Your task to perform on an android device: check the backup settings in the google photos Image 0: 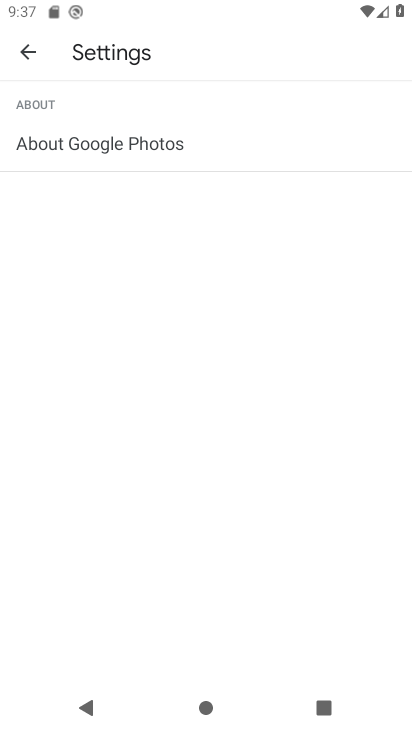
Step 0: press home button
Your task to perform on an android device: check the backup settings in the google photos Image 1: 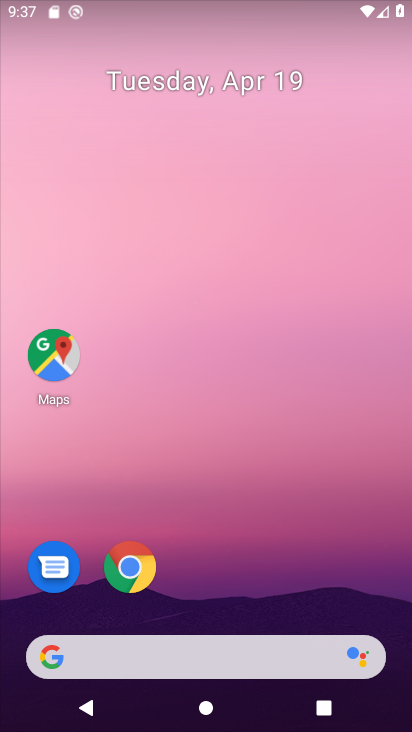
Step 1: drag from (255, 527) to (311, 41)
Your task to perform on an android device: check the backup settings in the google photos Image 2: 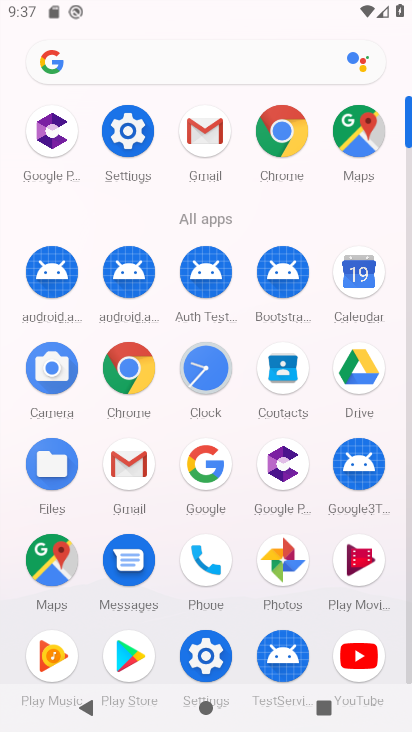
Step 2: click (276, 550)
Your task to perform on an android device: check the backup settings in the google photos Image 3: 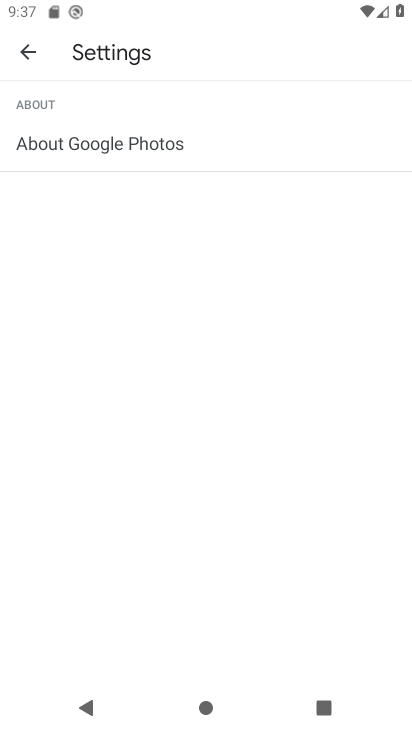
Step 3: click (24, 51)
Your task to perform on an android device: check the backup settings in the google photos Image 4: 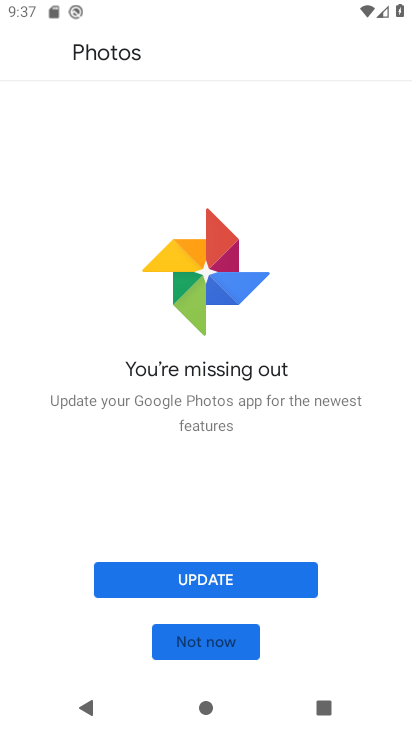
Step 4: click (275, 574)
Your task to perform on an android device: check the backup settings in the google photos Image 5: 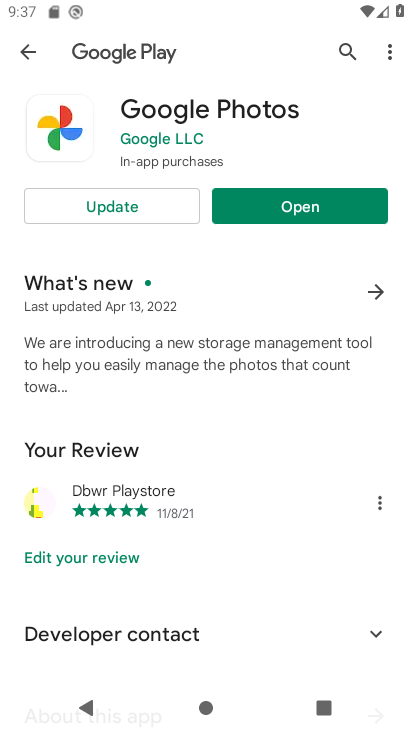
Step 5: click (157, 196)
Your task to perform on an android device: check the backup settings in the google photos Image 6: 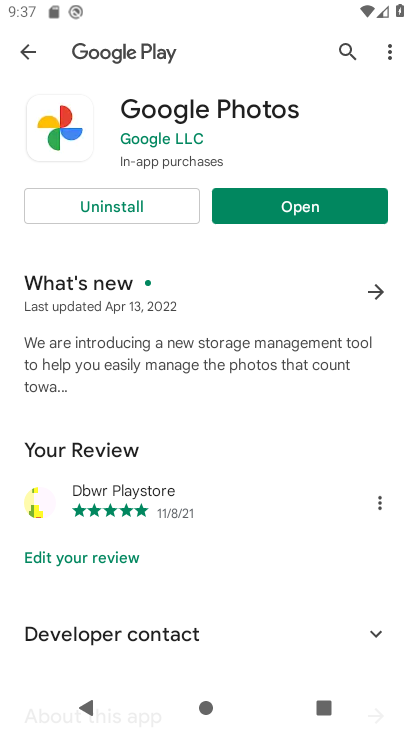
Step 6: click (294, 205)
Your task to perform on an android device: check the backup settings in the google photos Image 7: 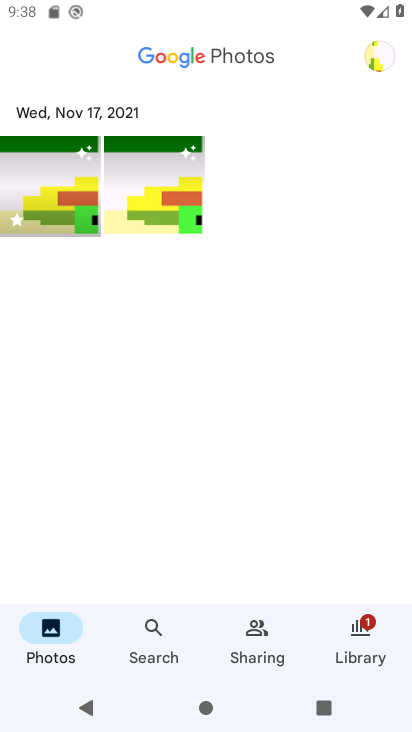
Step 7: click (374, 60)
Your task to perform on an android device: check the backup settings in the google photos Image 8: 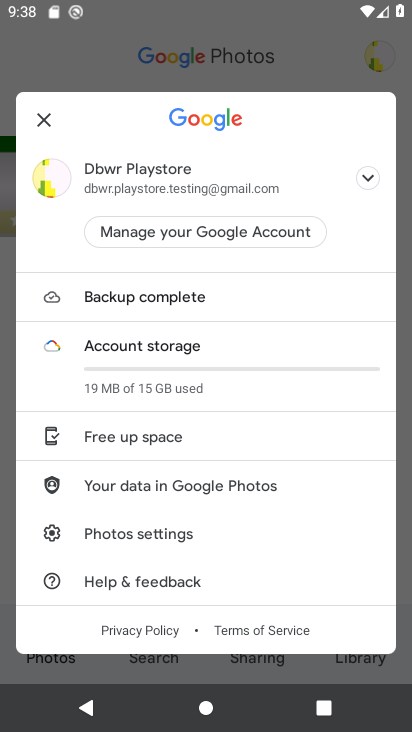
Step 8: click (113, 534)
Your task to perform on an android device: check the backup settings in the google photos Image 9: 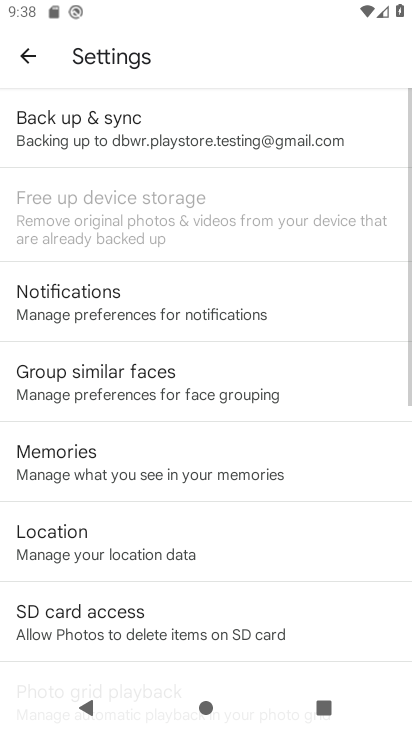
Step 9: click (118, 138)
Your task to perform on an android device: check the backup settings in the google photos Image 10: 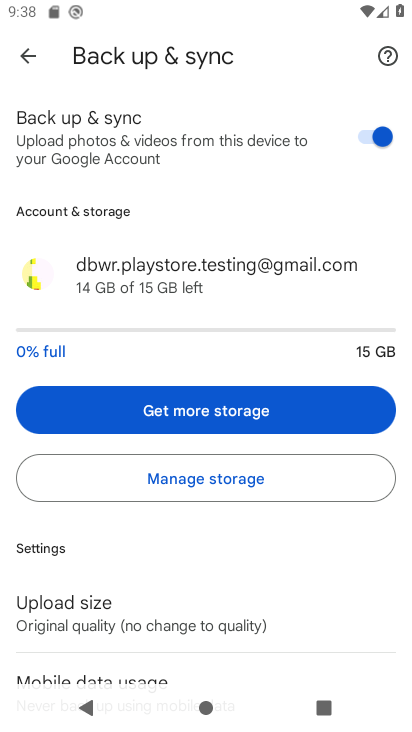
Step 10: task complete